Your task to perform on an android device: Do I have any events tomorrow? Image 0: 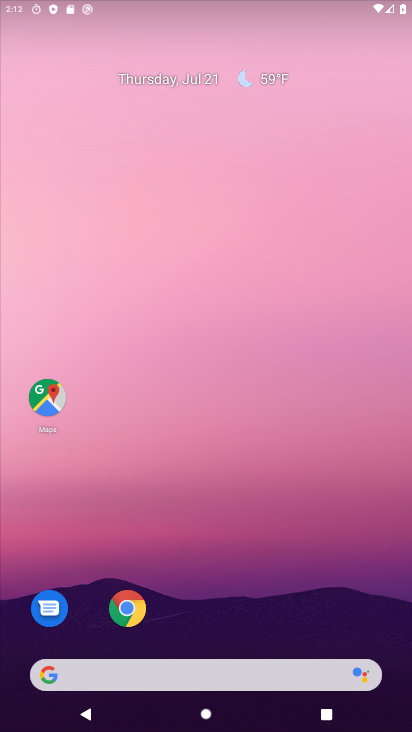
Step 0: click (278, 161)
Your task to perform on an android device: Do I have any events tomorrow? Image 1: 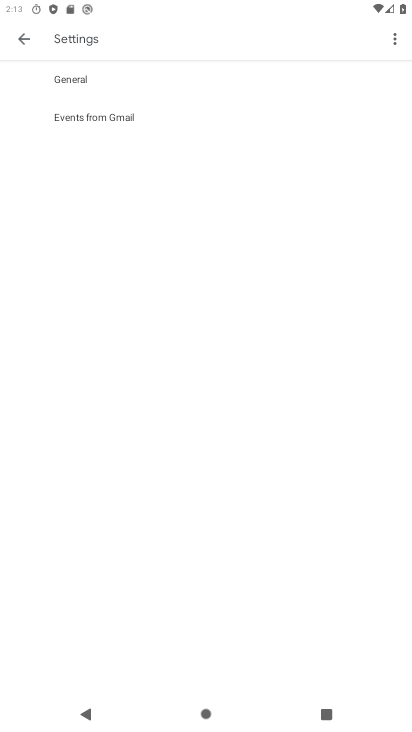
Step 1: press home button
Your task to perform on an android device: Do I have any events tomorrow? Image 2: 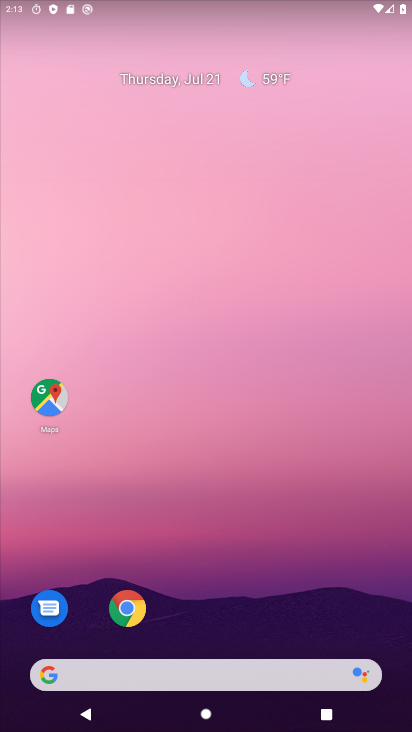
Step 2: drag from (276, 569) to (270, 1)
Your task to perform on an android device: Do I have any events tomorrow? Image 3: 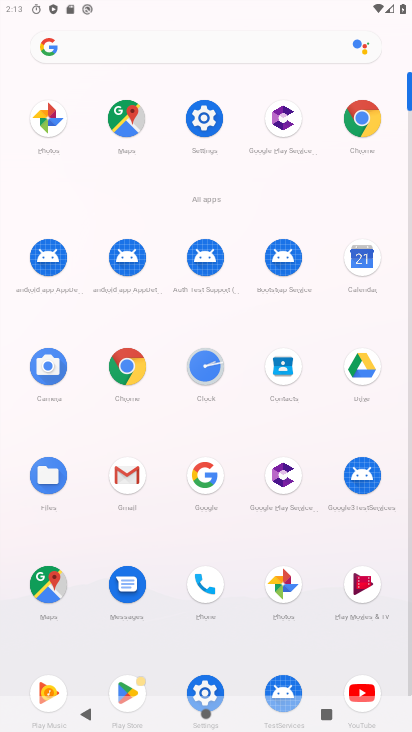
Step 3: click (364, 272)
Your task to perform on an android device: Do I have any events tomorrow? Image 4: 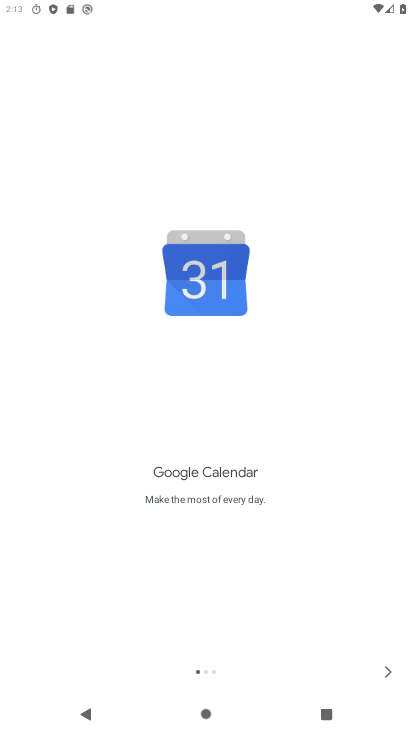
Step 4: click (382, 670)
Your task to perform on an android device: Do I have any events tomorrow? Image 5: 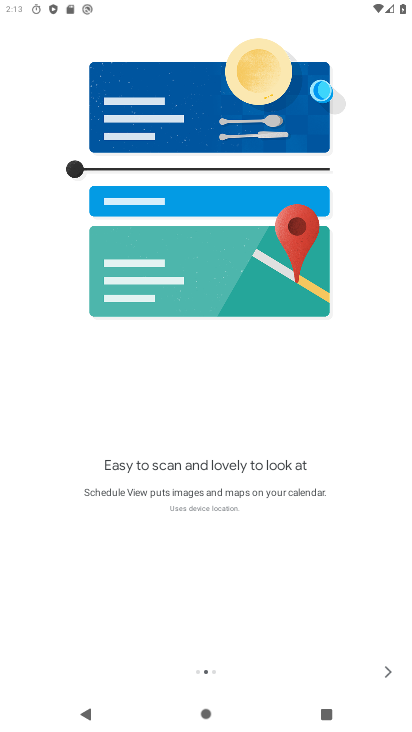
Step 5: click (382, 670)
Your task to perform on an android device: Do I have any events tomorrow? Image 6: 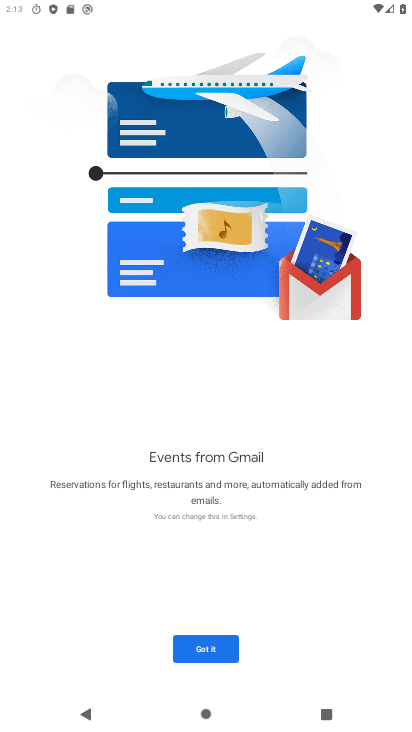
Step 6: click (198, 652)
Your task to perform on an android device: Do I have any events tomorrow? Image 7: 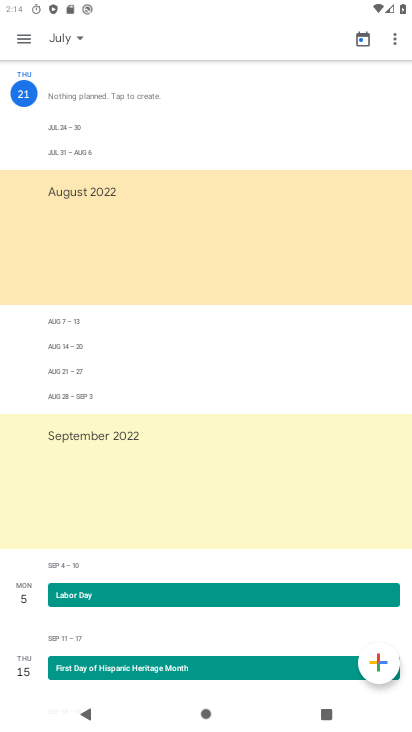
Step 7: click (78, 42)
Your task to perform on an android device: Do I have any events tomorrow? Image 8: 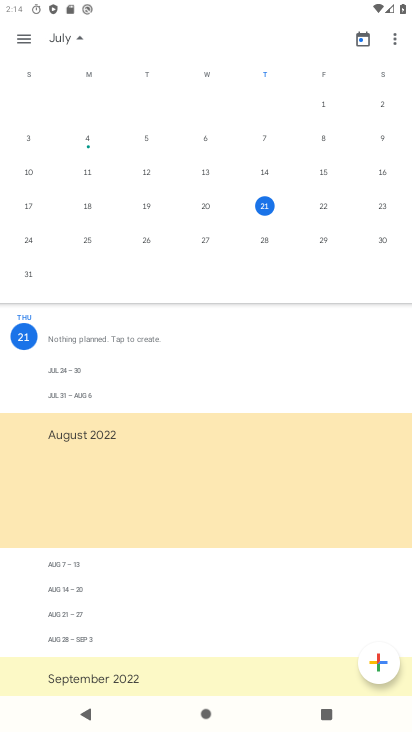
Step 8: click (330, 209)
Your task to perform on an android device: Do I have any events tomorrow? Image 9: 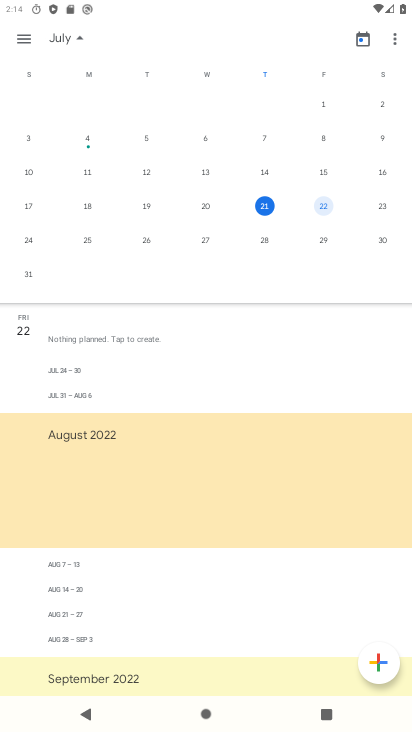
Step 9: task complete